Your task to perform on an android device: turn on javascript in the chrome app Image 0: 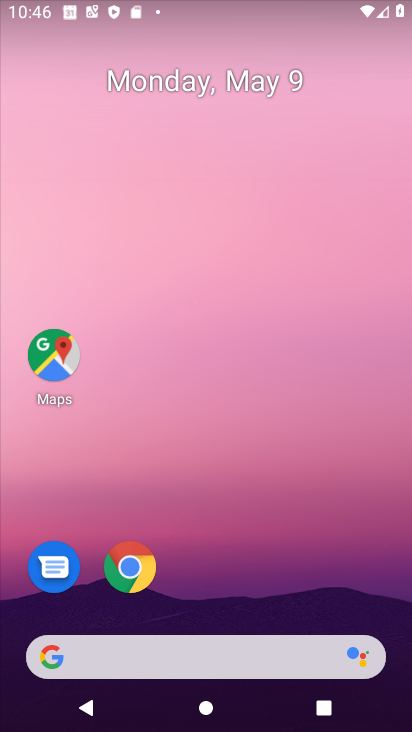
Step 0: click (120, 578)
Your task to perform on an android device: turn on javascript in the chrome app Image 1: 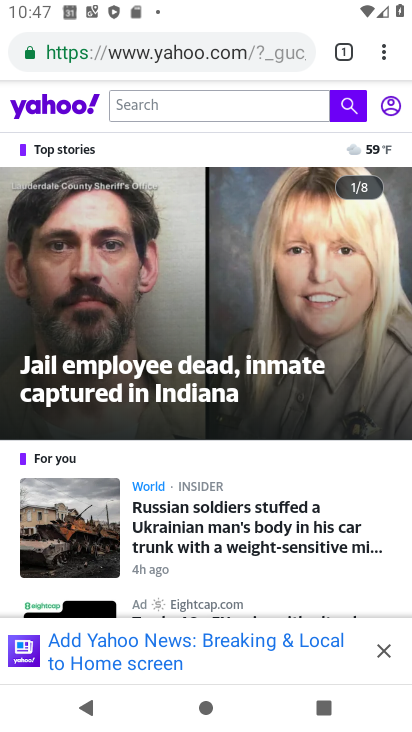
Step 1: drag from (380, 52) to (245, 604)
Your task to perform on an android device: turn on javascript in the chrome app Image 2: 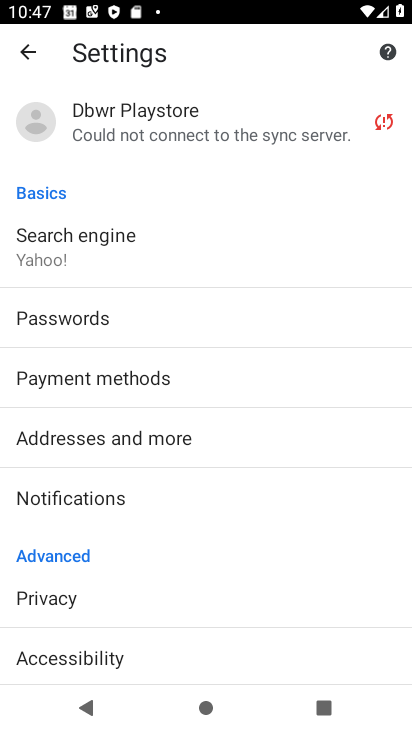
Step 2: drag from (191, 599) to (126, 185)
Your task to perform on an android device: turn on javascript in the chrome app Image 3: 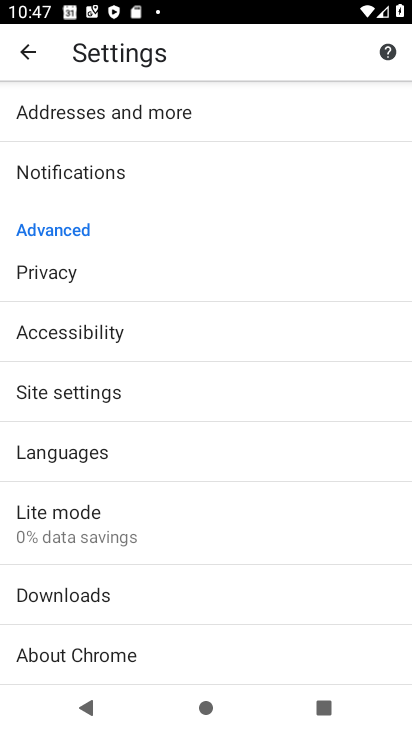
Step 3: drag from (184, 621) to (99, 118)
Your task to perform on an android device: turn on javascript in the chrome app Image 4: 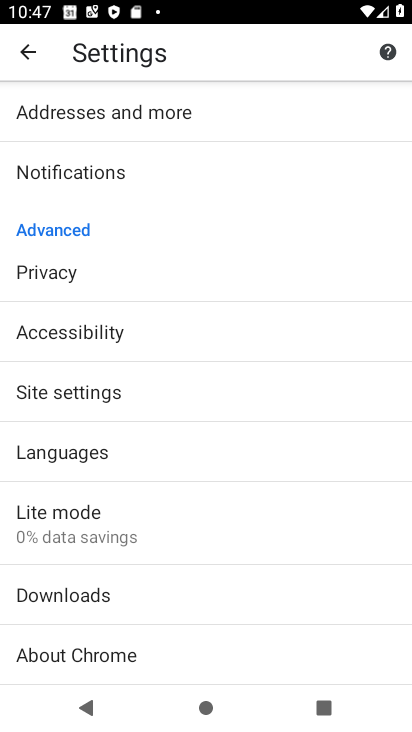
Step 4: click (93, 401)
Your task to perform on an android device: turn on javascript in the chrome app Image 5: 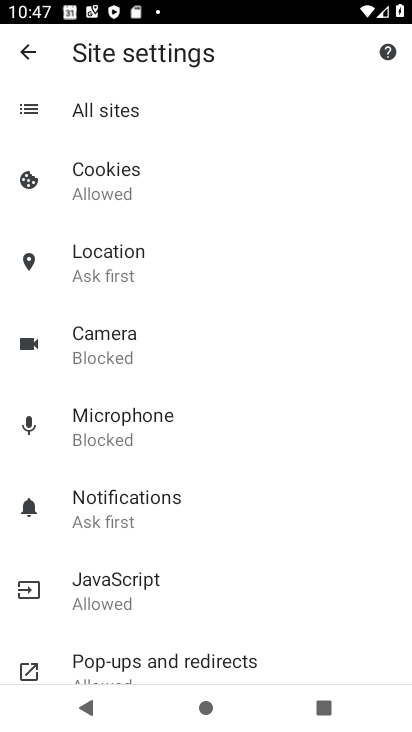
Step 5: click (146, 584)
Your task to perform on an android device: turn on javascript in the chrome app Image 6: 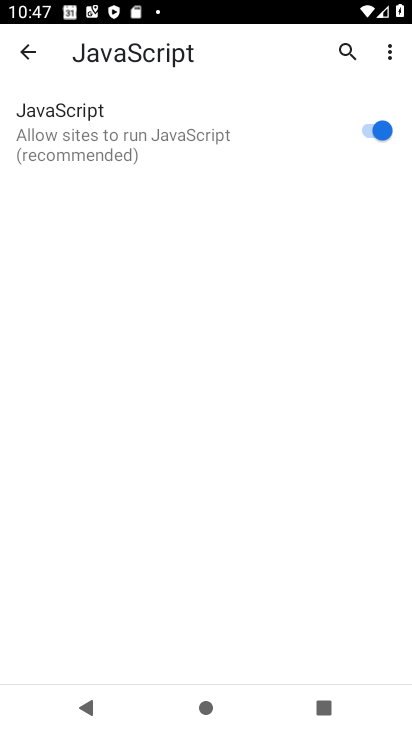
Step 6: task complete